Your task to perform on an android device: Open CNN.com Image 0: 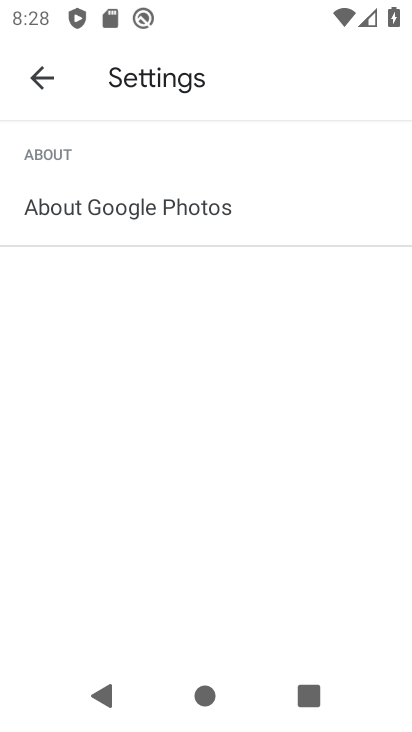
Step 0: press back button
Your task to perform on an android device: Open CNN.com Image 1: 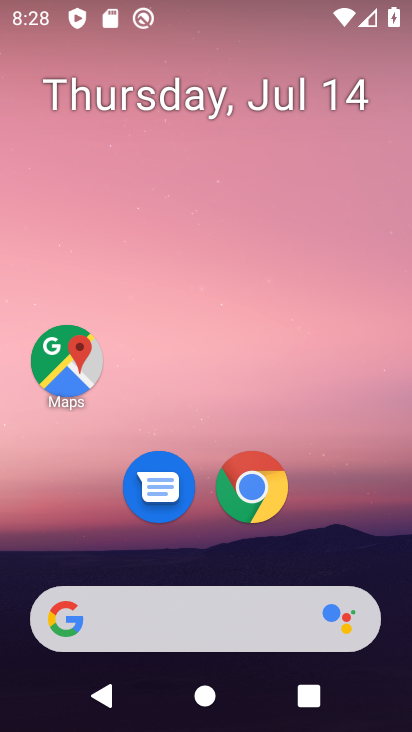
Step 1: click (248, 492)
Your task to perform on an android device: Open CNN.com Image 2: 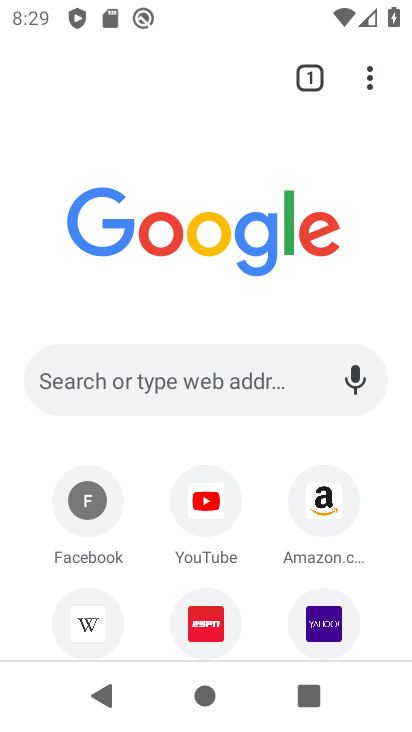
Step 2: click (146, 374)
Your task to perform on an android device: Open CNN.com Image 3: 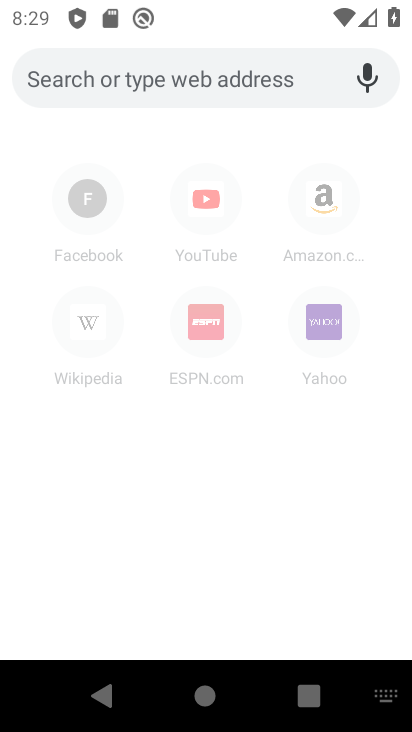
Step 3: type "cnn.com"
Your task to perform on an android device: Open CNN.com Image 4: 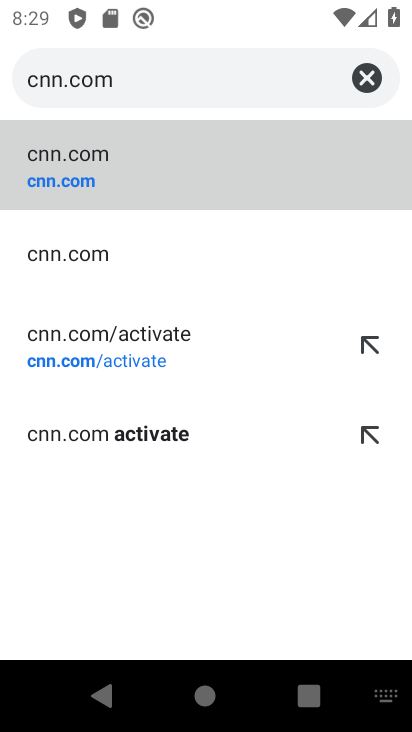
Step 4: click (247, 178)
Your task to perform on an android device: Open CNN.com Image 5: 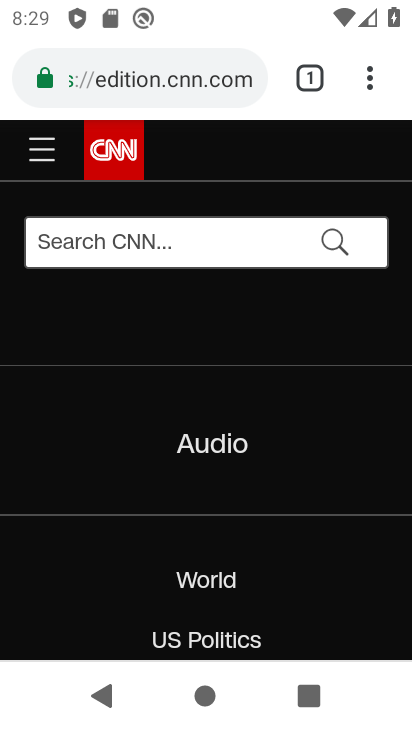
Step 5: task complete